Your task to perform on an android device: toggle translation in the chrome app Image 0: 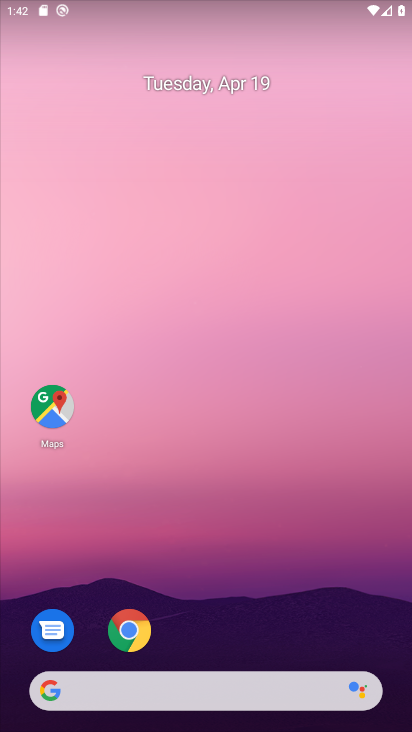
Step 0: click (129, 630)
Your task to perform on an android device: toggle translation in the chrome app Image 1: 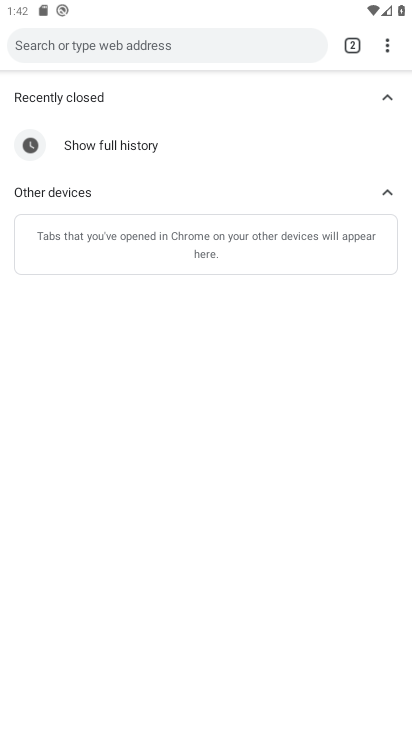
Step 1: click (383, 58)
Your task to perform on an android device: toggle translation in the chrome app Image 2: 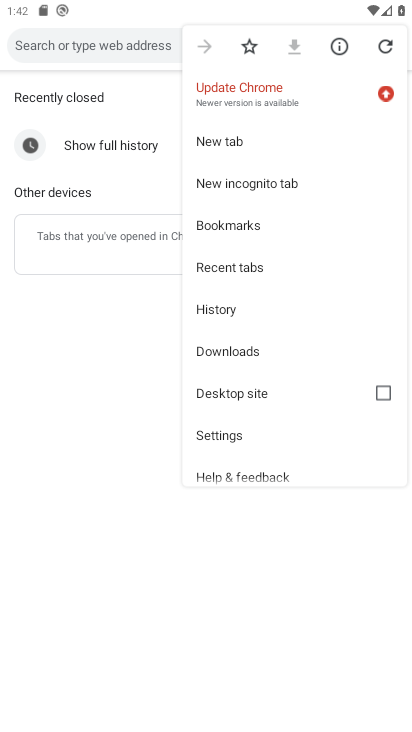
Step 2: click (240, 430)
Your task to perform on an android device: toggle translation in the chrome app Image 3: 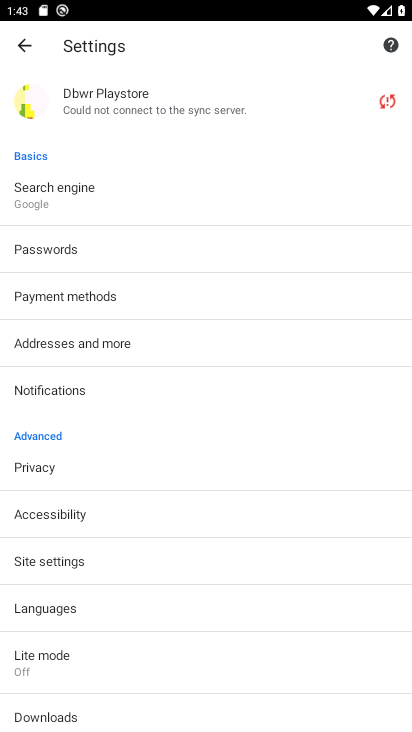
Step 3: click (73, 610)
Your task to perform on an android device: toggle translation in the chrome app Image 4: 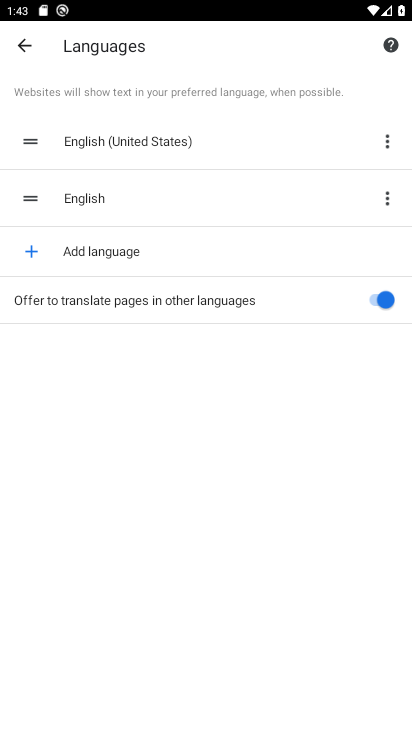
Step 4: click (381, 293)
Your task to perform on an android device: toggle translation in the chrome app Image 5: 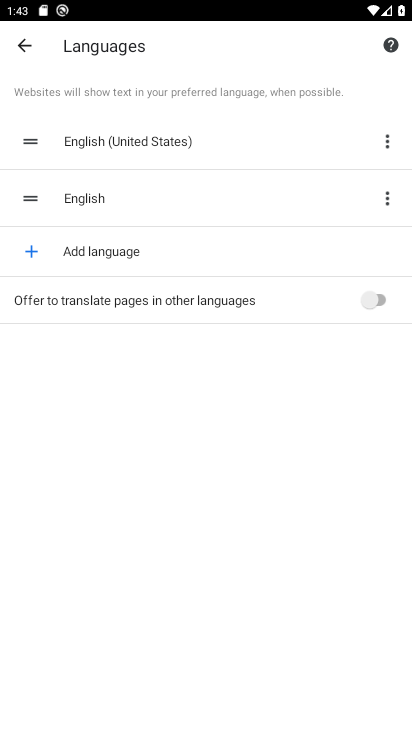
Step 5: task complete